Your task to perform on an android device: Search for "usb-c to usb-b" on amazon, select the first entry, add it to the cart, then select checkout. Image 0: 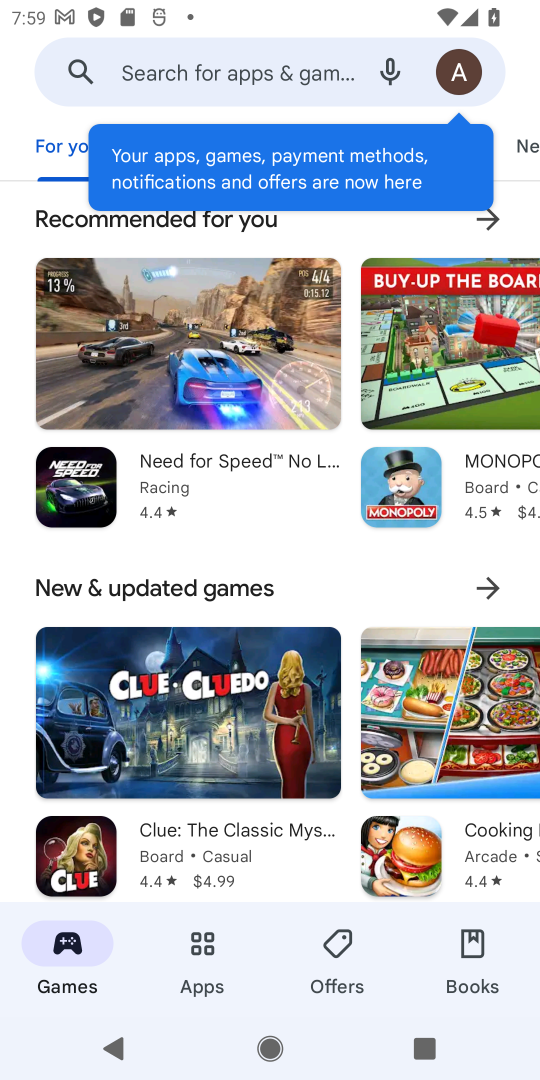
Step 0: press home button
Your task to perform on an android device: Search for "usb-c to usb-b" on amazon, select the first entry, add it to the cart, then select checkout. Image 1: 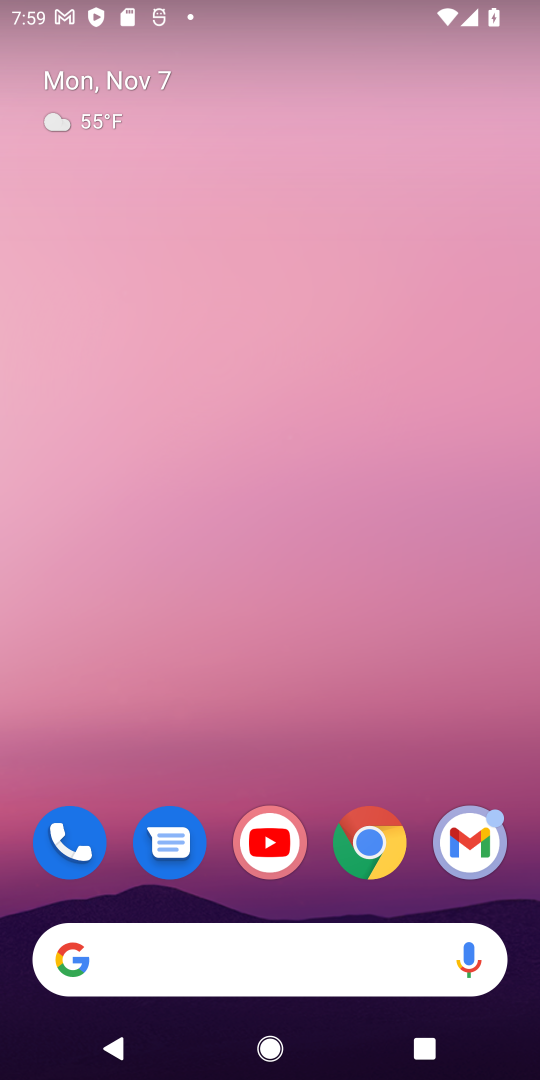
Step 1: click (373, 843)
Your task to perform on an android device: Search for "usb-c to usb-b" on amazon, select the first entry, add it to the cart, then select checkout. Image 2: 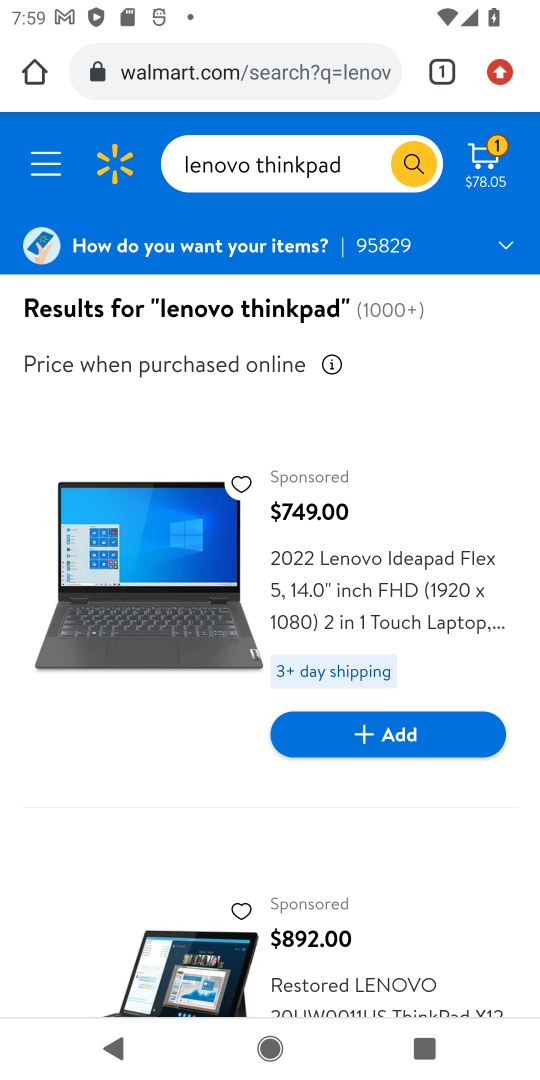
Step 2: click (288, 65)
Your task to perform on an android device: Search for "usb-c to usb-b" on amazon, select the first entry, add it to the cart, then select checkout. Image 3: 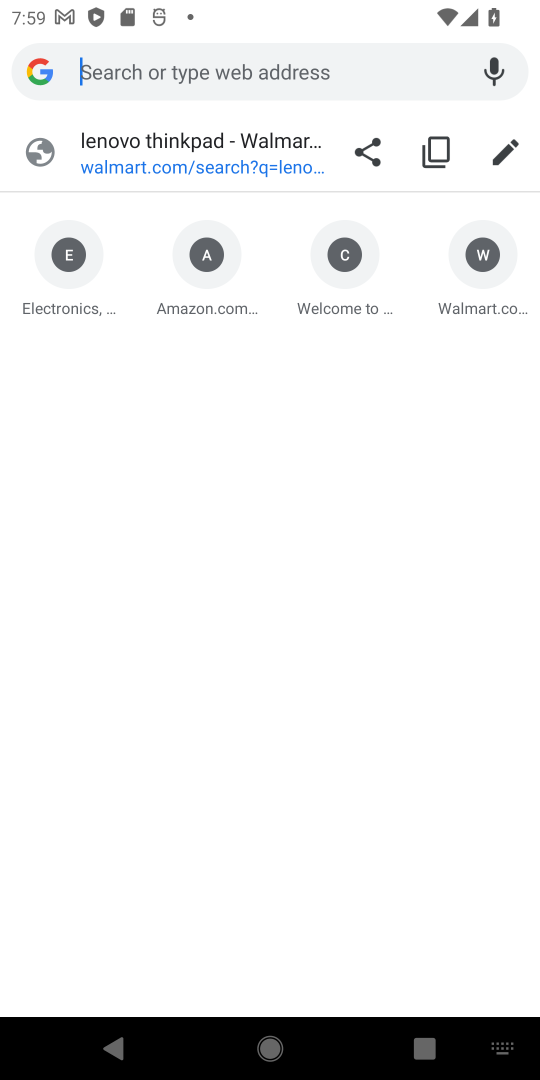
Step 3: click (243, 308)
Your task to perform on an android device: Search for "usb-c to usb-b" on amazon, select the first entry, add it to the cart, then select checkout. Image 4: 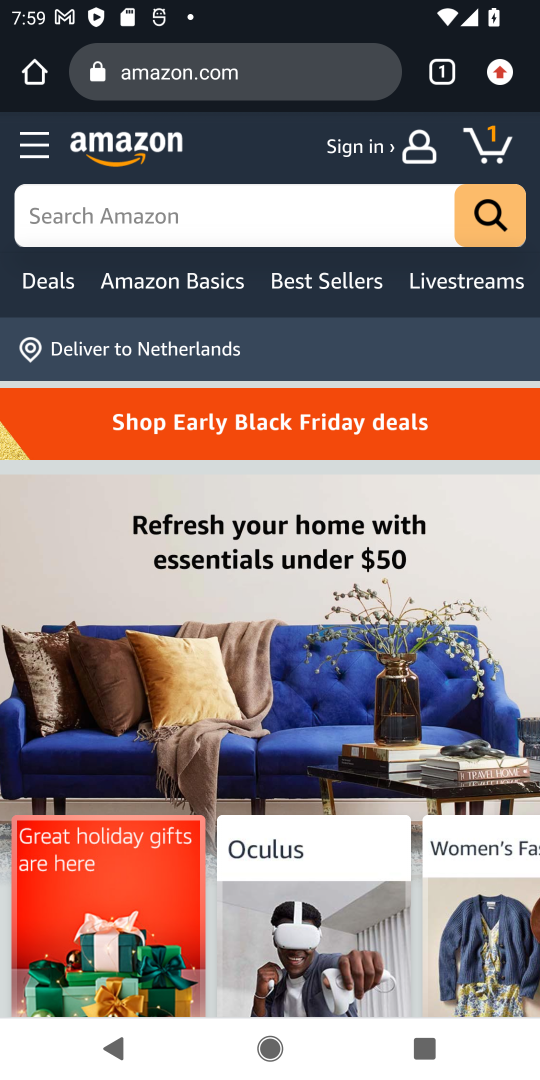
Step 4: click (243, 218)
Your task to perform on an android device: Search for "usb-c to usb-b" on amazon, select the first entry, add it to the cart, then select checkout. Image 5: 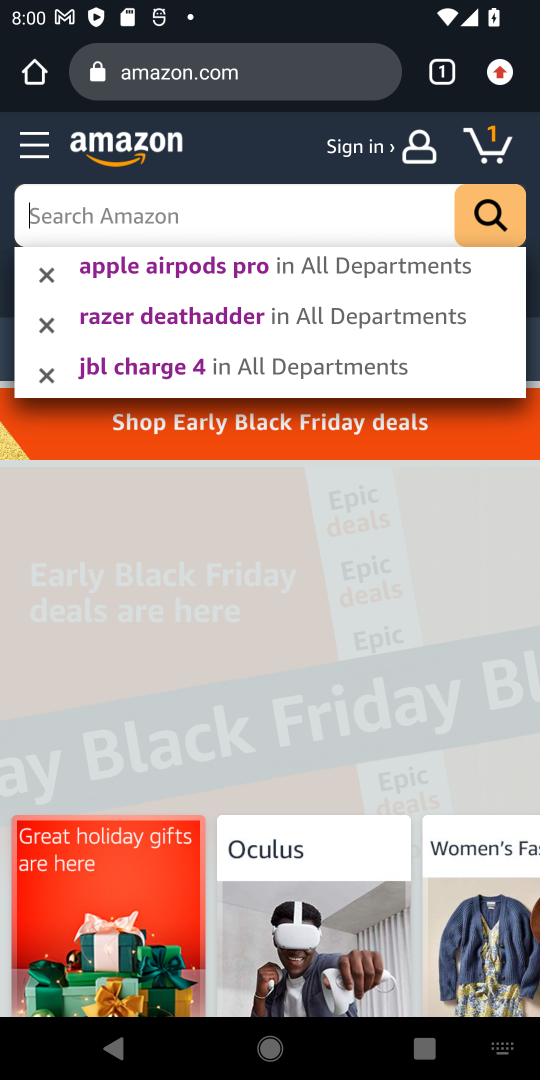
Step 5: type "usb-c to usb-b"
Your task to perform on an android device: Search for "usb-c to usb-b" on amazon, select the first entry, add it to the cart, then select checkout. Image 6: 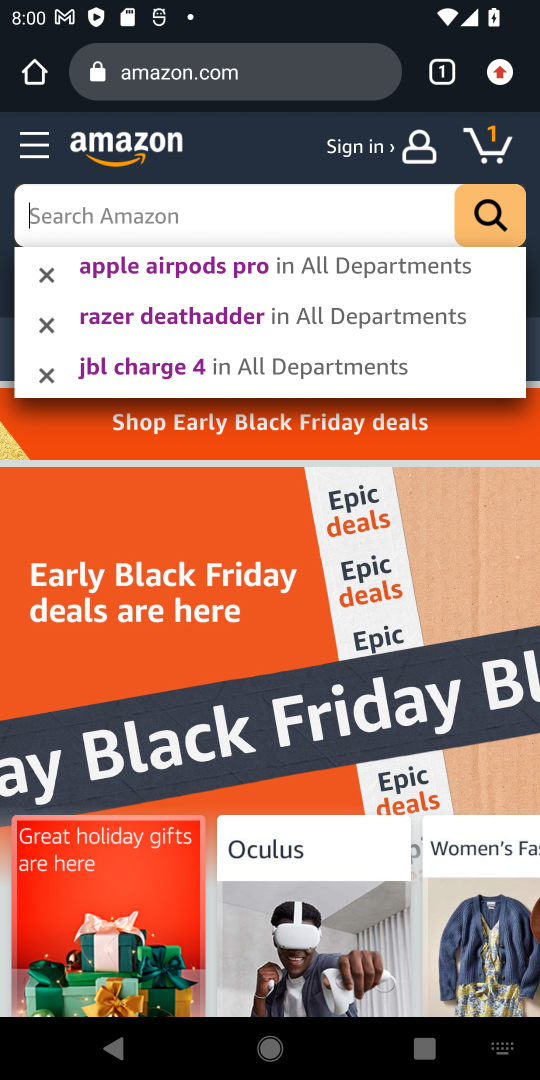
Step 6: press enter
Your task to perform on an android device: Search for "usb-c to usb-b" on amazon, select the first entry, add it to the cart, then select checkout. Image 7: 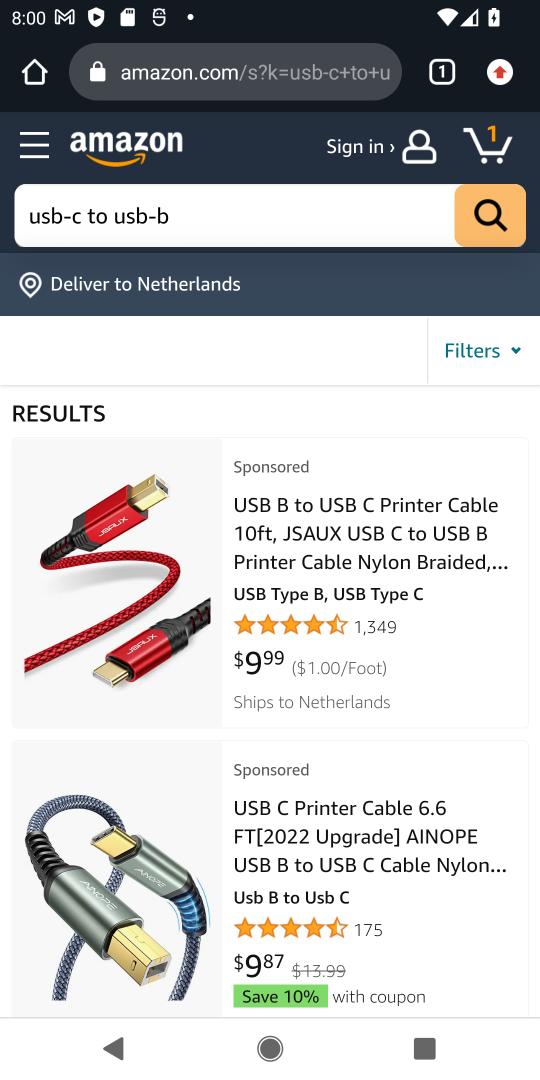
Step 7: task complete